Your task to perform on an android device: Go to Google maps Image 0: 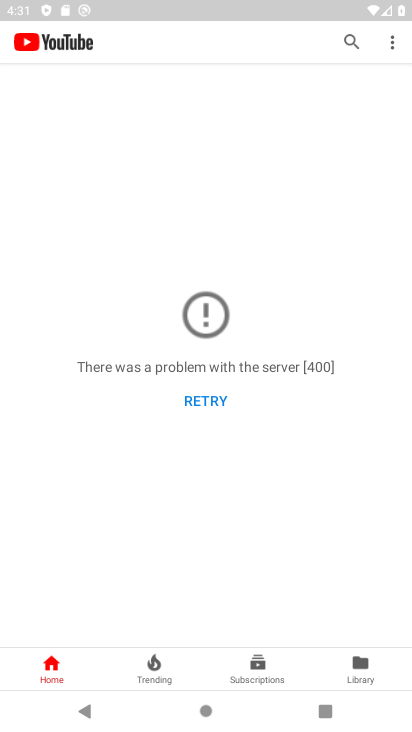
Step 0: press back button
Your task to perform on an android device: Go to Google maps Image 1: 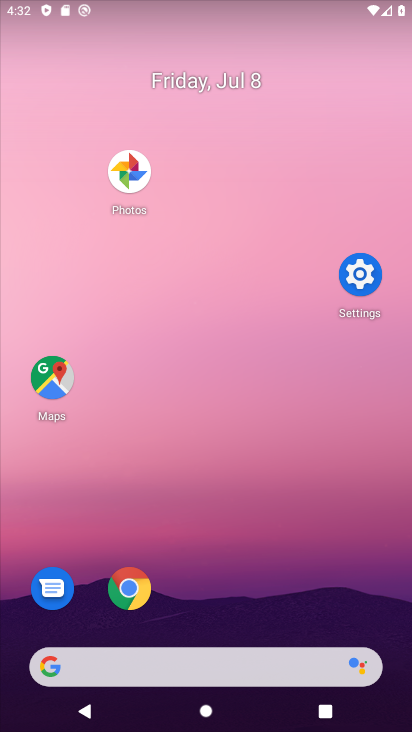
Step 1: drag from (239, 598) to (114, 19)
Your task to perform on an android device: Go to Google maps Image 2: 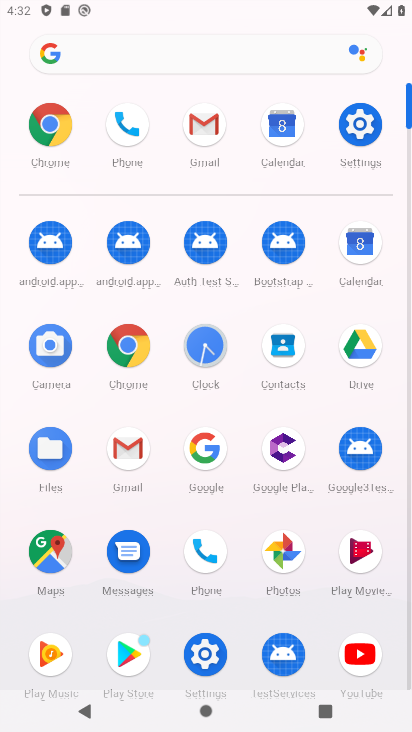
Step 2: click (195, 458)
Your task to perform on an android device: Go to Google maps Image 3: 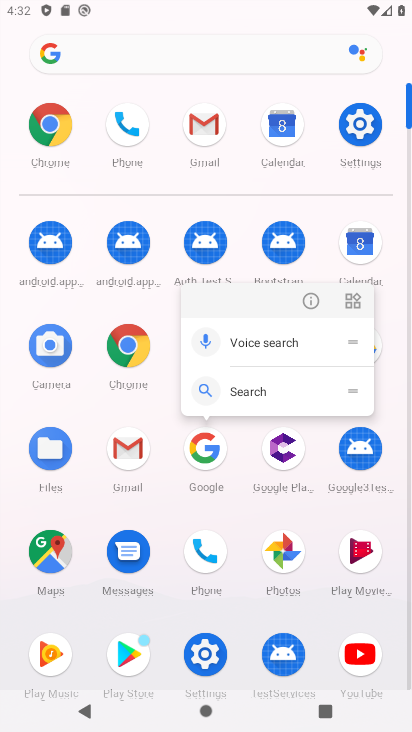
Step 3: click (47, 549)
Your task to perform on an android device: Go to Google maps Image 4: 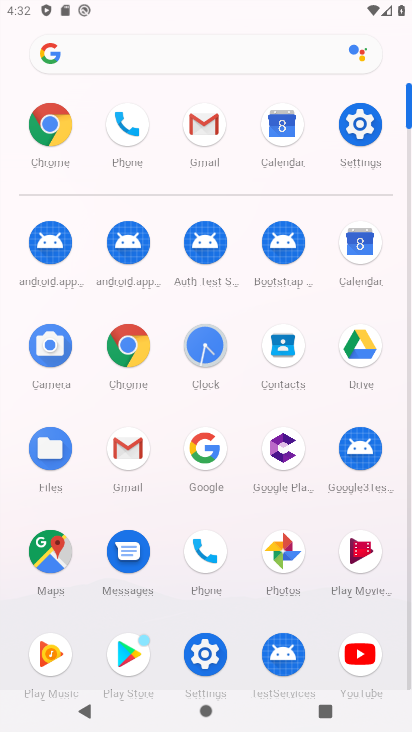
Step 4: click (56, 556)
Your task to perform on an android device: Go to Google maps Image 5: 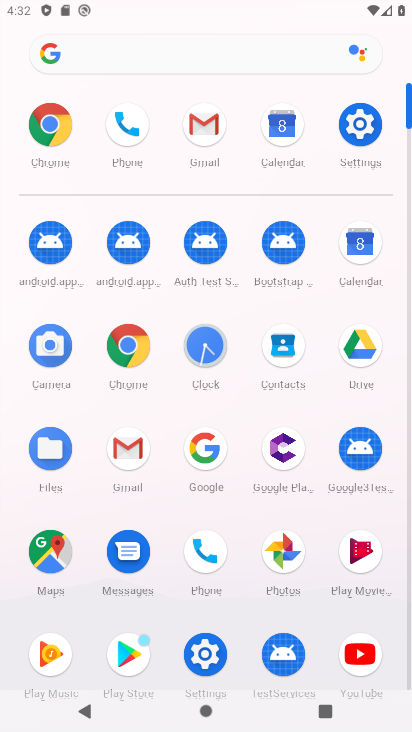
Step 5: click (58, 556)
Your task to perform on an android device: Go to Google maps Image 6: 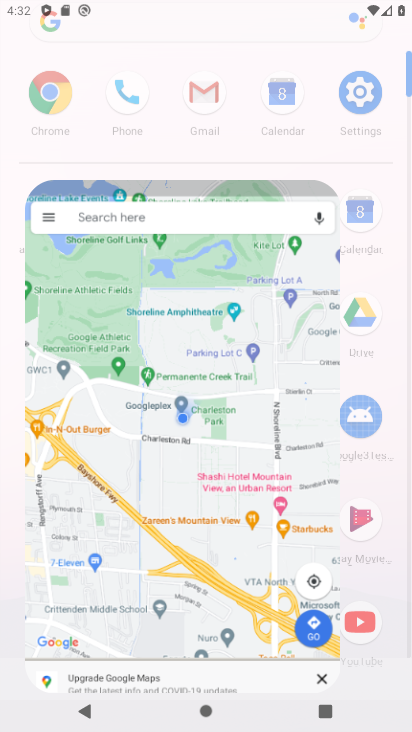
Step 6: click (64, 596)
Your task to perform on an android device: Go to Google maps Image 7: 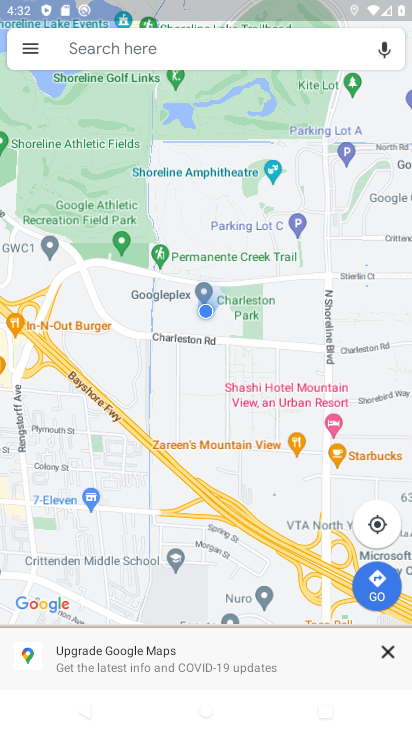
Step 7: click (71, 588)
Your task to perform on an android device: Go to Google maps Image 8: 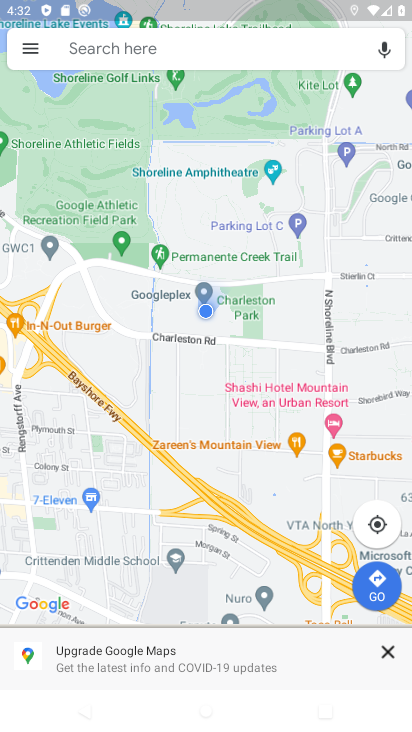
Step 8: click (91, 594)
Your task to perform on an android device: Go to Google maps Image 9: 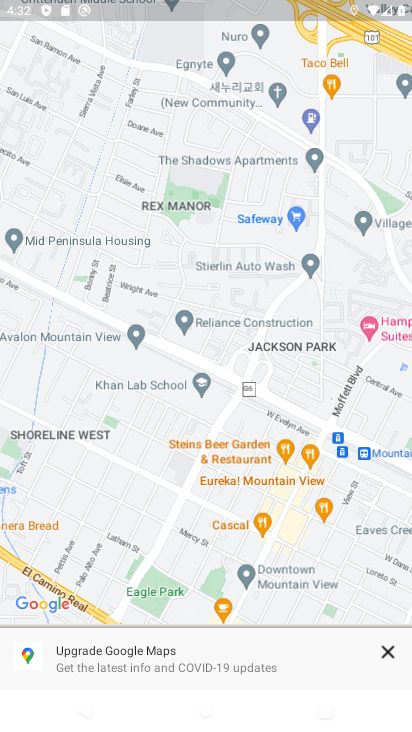
Step 9: press back button
Your task to perform on an android device: Go to Google maps Image 10: 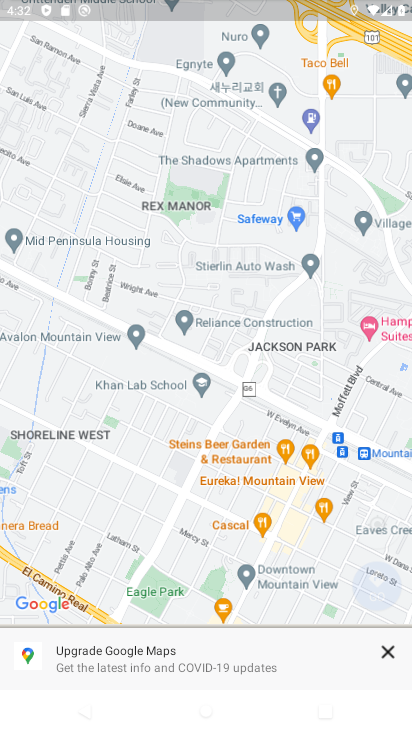
Step 10: press back button
Your task to perform on an android device: Go to Google maps Image 11: 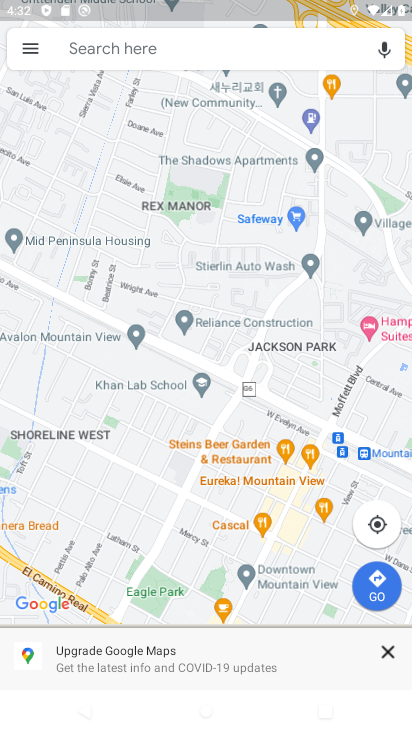
Step 11: press back button
Your task to perform on an android device: Go to Google maps Image 12: 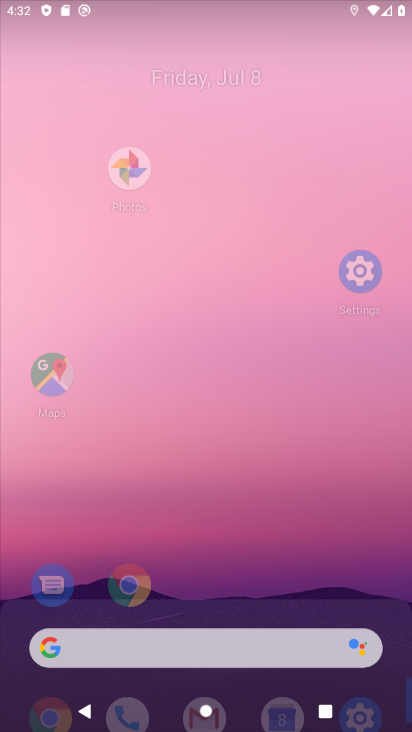
Step 12: press home button
Your task to perform on an android device: Go to Google maps Image 13: 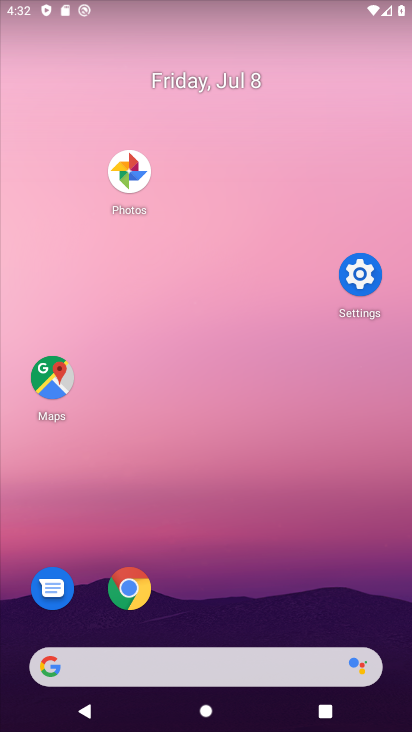
Step 13: press home button
Your task to perform on an android device: Go to Google maps Image 14: 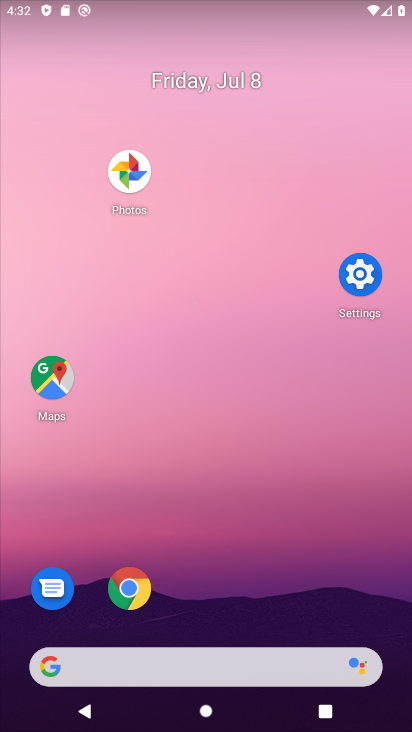
Step 14: click (159, 118)
Your task to perform on an android device: Go to Google maps Image 15: 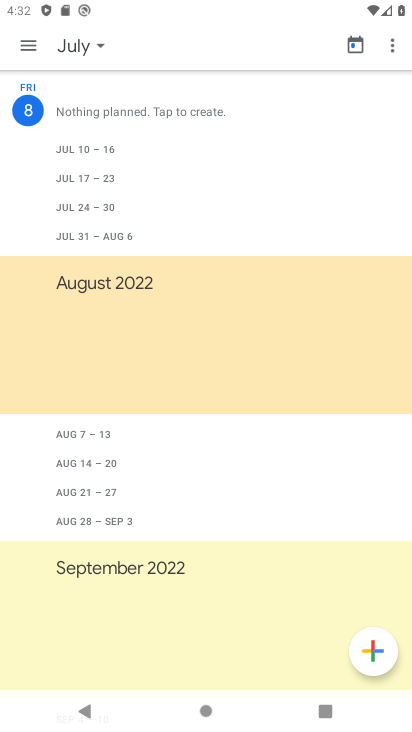
Step 15: press home button
Your task to perform on an android device: Go to Google maps Image 16: 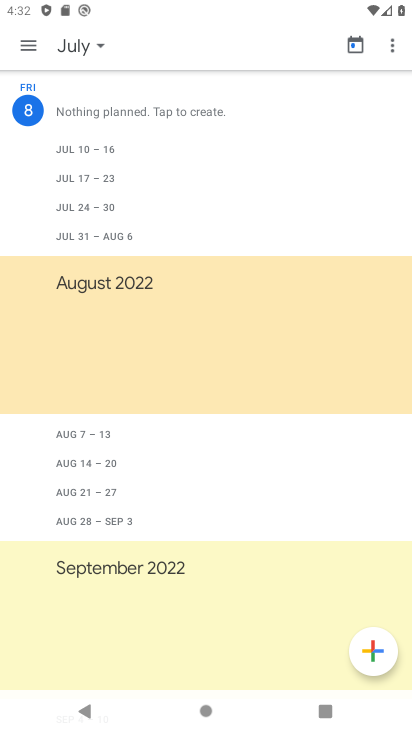
Step 16: press home button
Your task to perform on an android device: Go to Google maps Image 17: 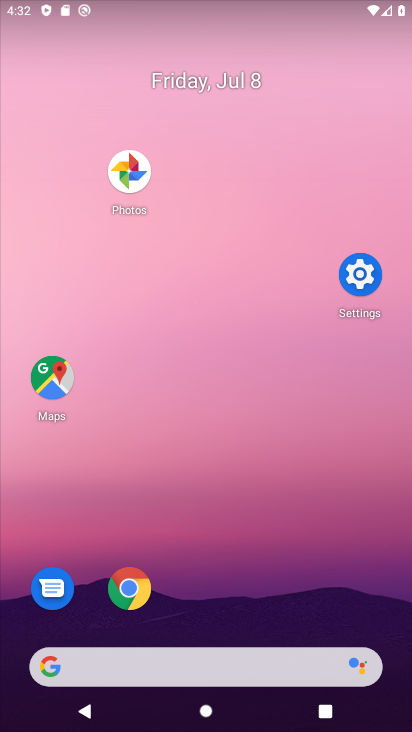
Step 17: drag from (223, 592) to (1, 20)
Your task to perform on an android device: Go to Google maps Image 18: 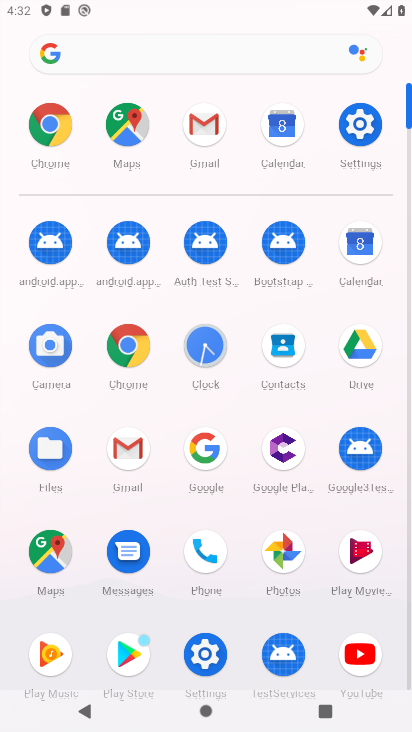
Step 18: click (120, 122)
Your task to perform on an android device: Go to Google maps Image 19: 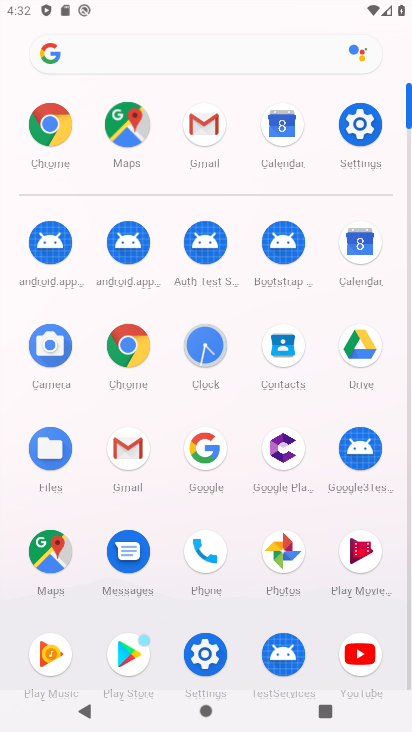
Step 19: click (127, 124)
Your task to perform on an android device: Go to Google maps Image 20: 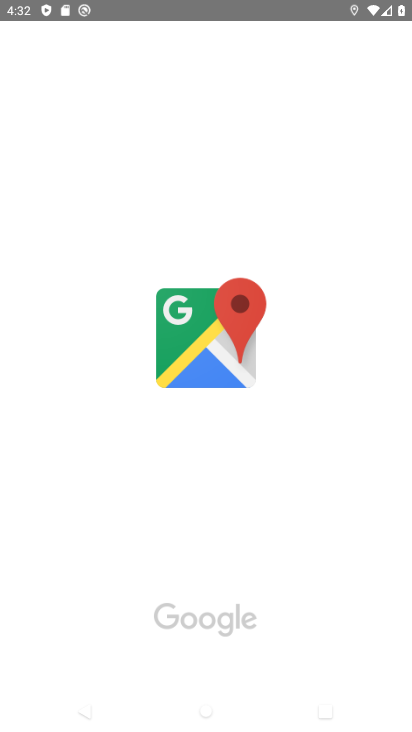
Step 20: click (137, 135)
Your task to perform on an android device: Go to Google maps Image 21: 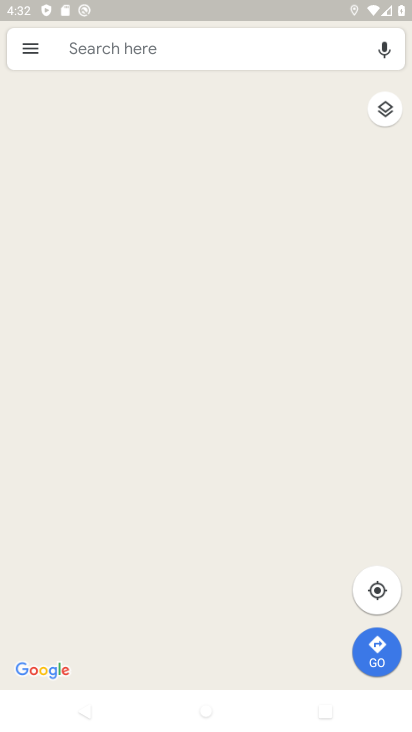
Step 21: click (138, 135)
Your task to perform on an android device: Go to Google maps Image 22: 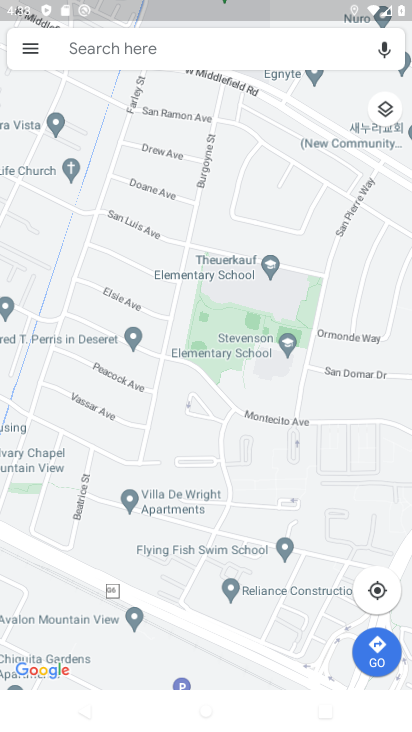
Step 22: task complete